Your task to perform on an android device: uninstall "The Home Depot" Image 0: 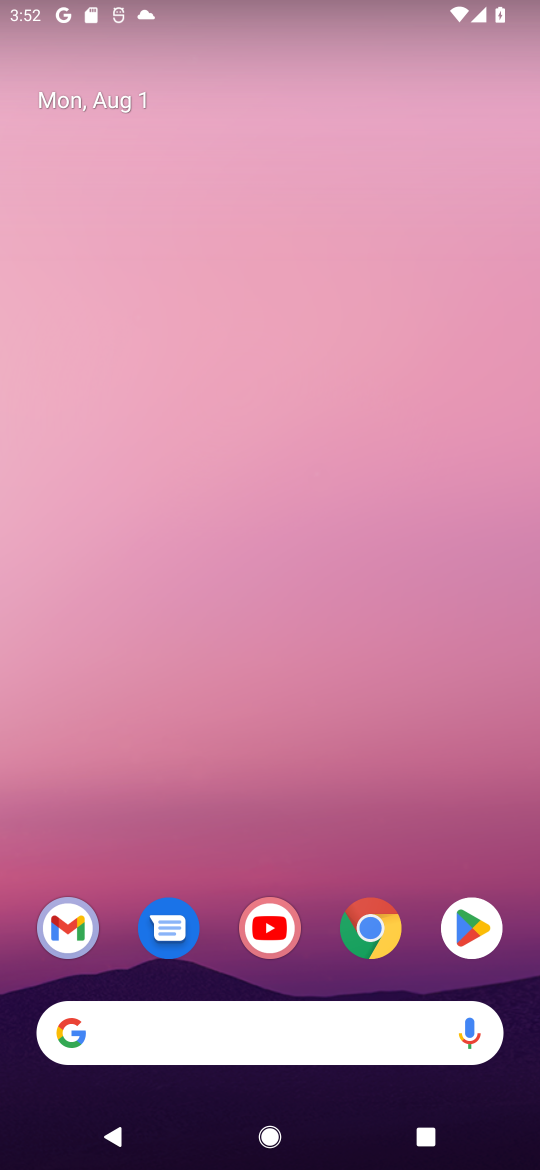
Step 0: press home button
Your task to perform on an android device: uninstall "The Home Depot" Image 1: 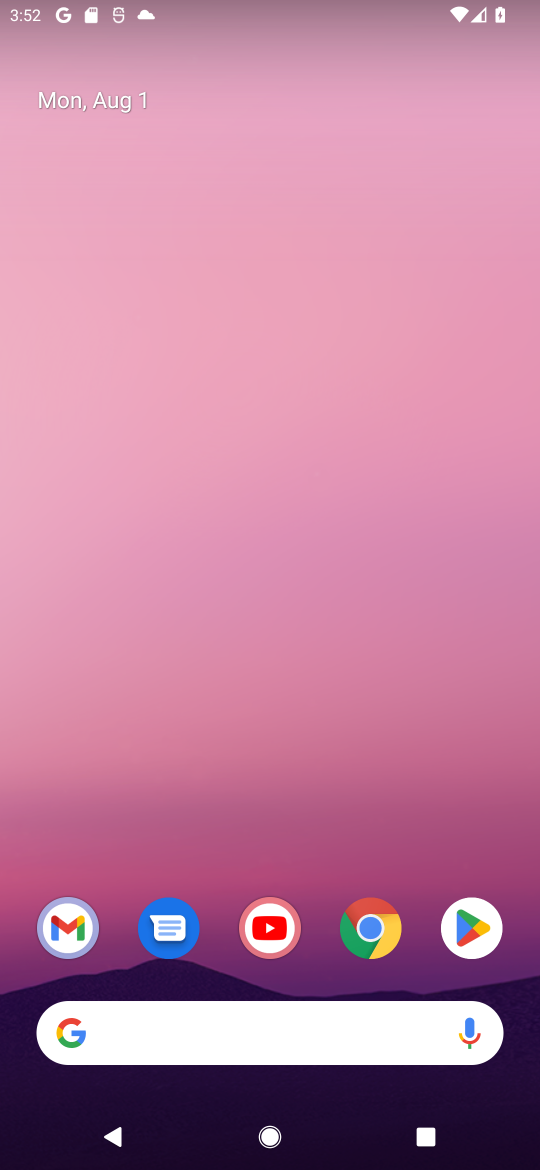
Step 1: press home button
Your task to perform on an android device: uninstall "The Home Depot" Image 2: 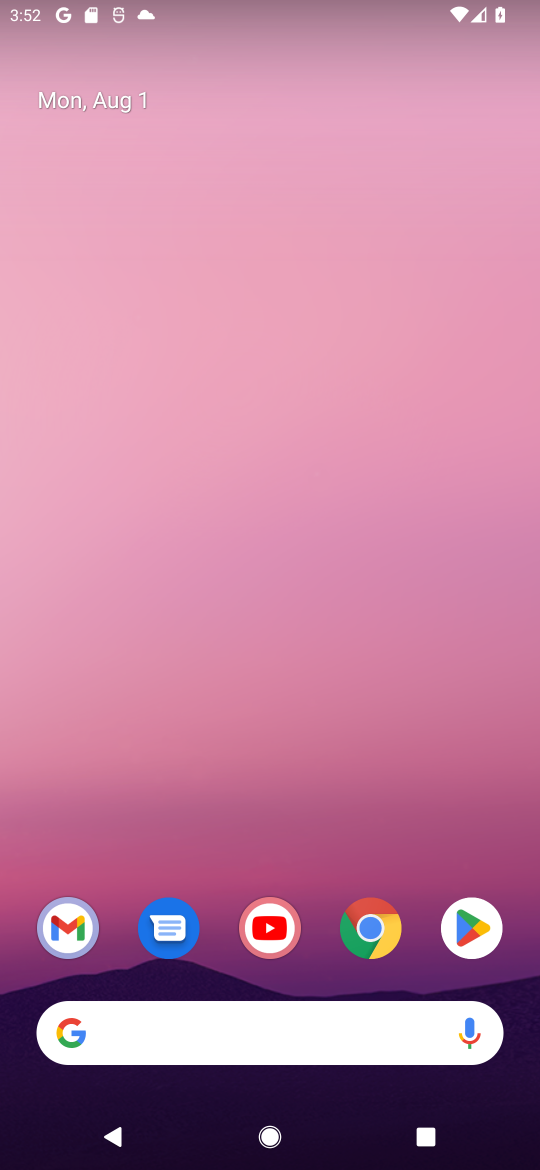
Step 2: click (463, 903)
Your task to perform on an android device: uninstall "The Home Depot" Image 3: 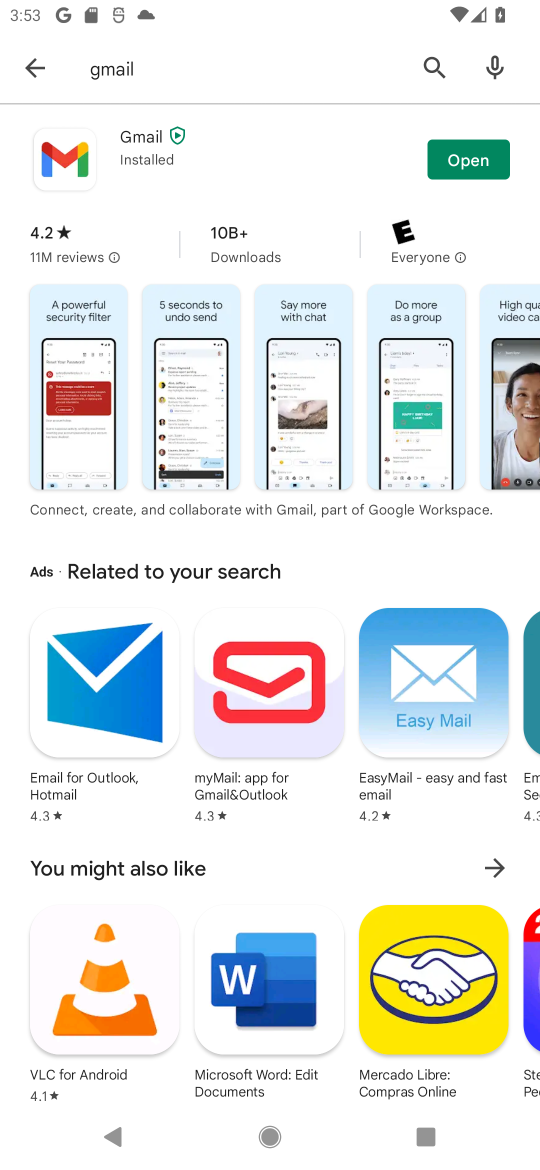
Step 3: click (418, 70)
Your task to perform on an android device: uninstall "The Home Depot" Image 4: 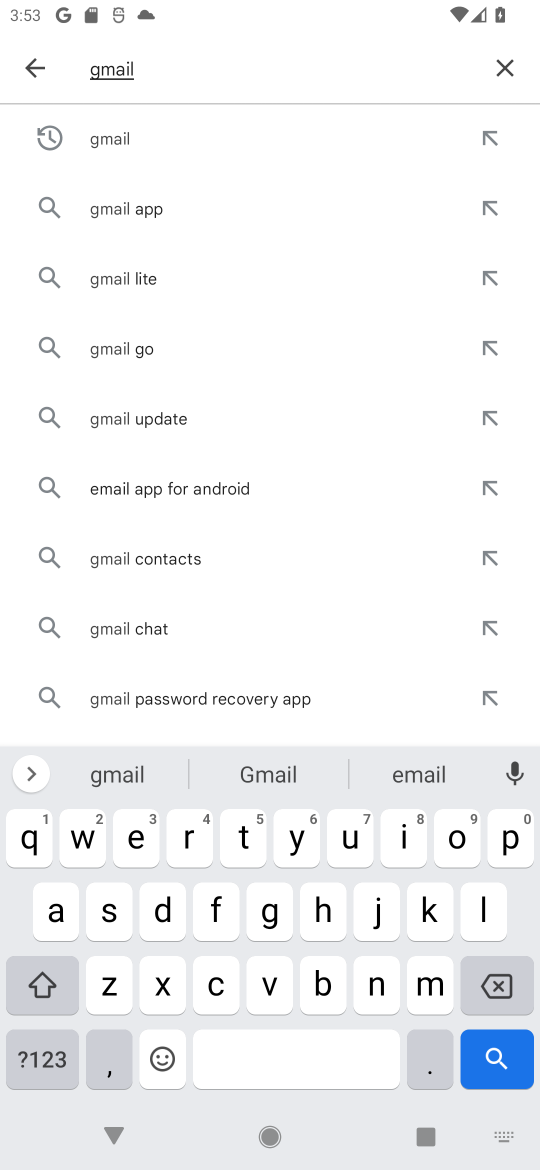
Step 4: click (507, 61)
Your task to perform on an android device: uninstall "The Home Depot" Image 5: 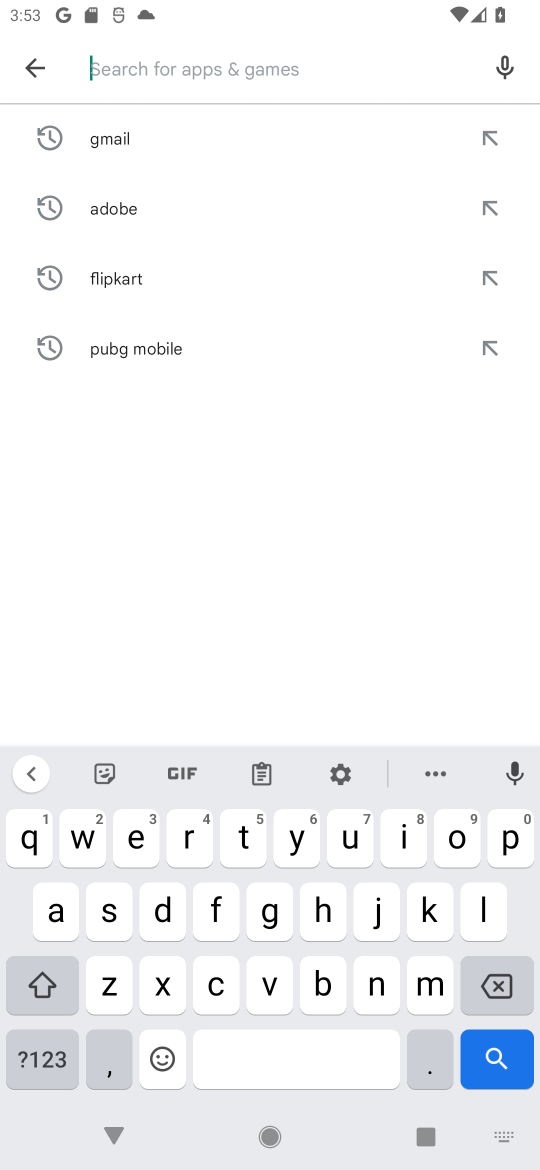
Step 5: type "home depot"
Your task to perform on an android device: uninstall "The Home Depot" Image 6: 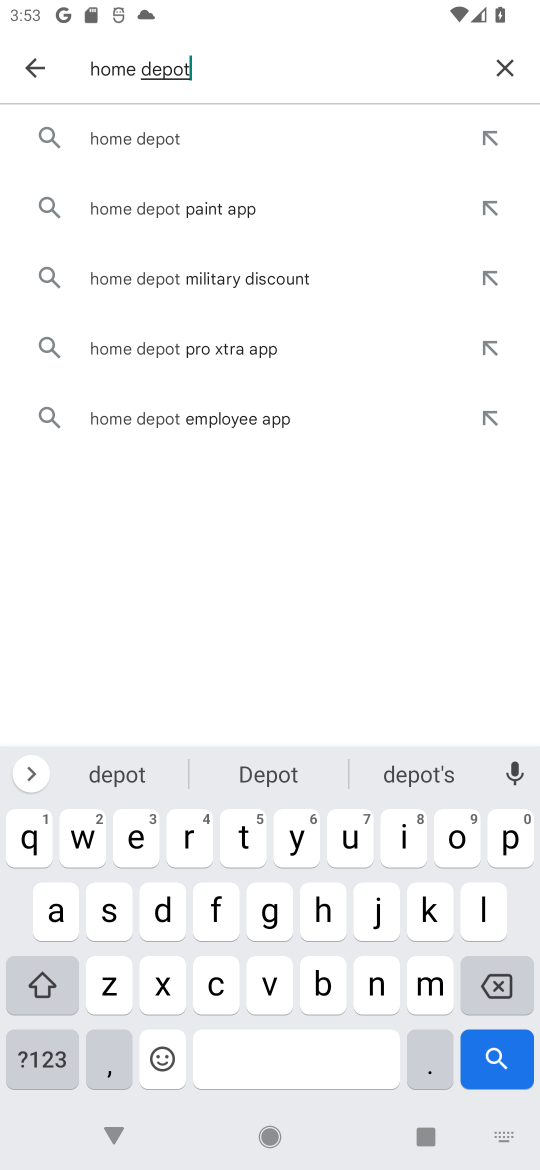
Step 6: click (112, 148)
Your task to perform on an android device: uninstall "The Home Depot" Image 7: 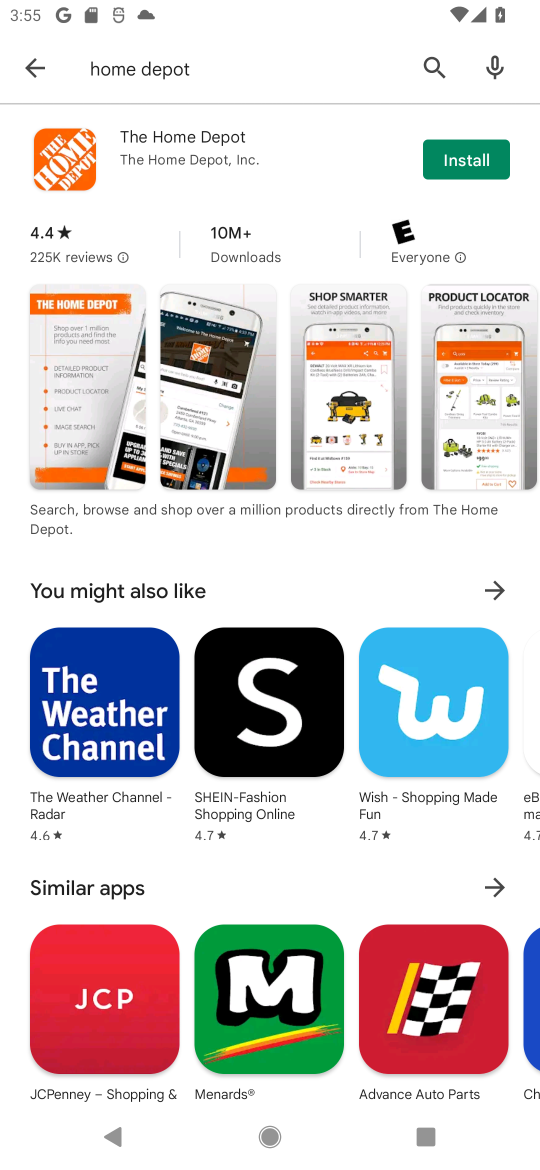
Step 7: task complete